Your task to perform on an android device: Open network settings Image 0: 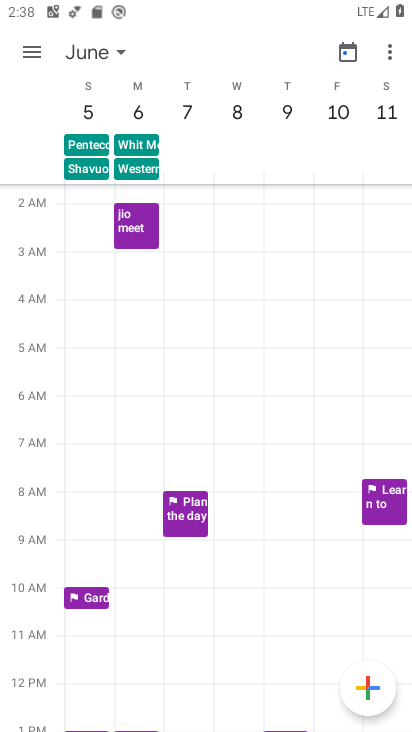
Step 0: press home button
Your task to perform on an android device: Open network settings Image 1: 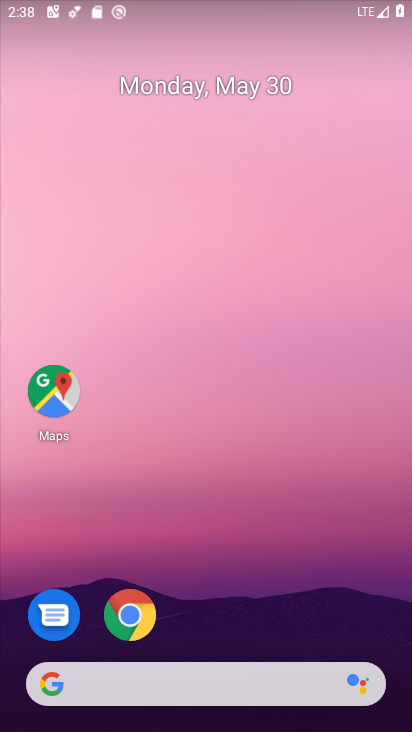
Step 1: drag from (226, 560) to (259, 16)
Your task to perform on an android device: Open network settings Image 2: 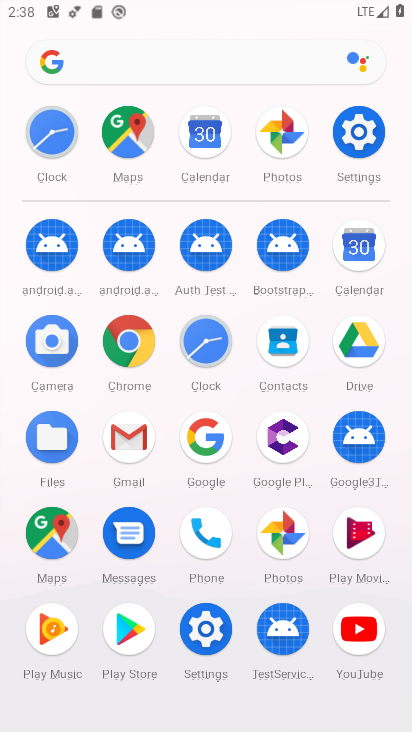
Step 2: click (351, 124)
Your task to perform on an android device: Open network settings Image 3: 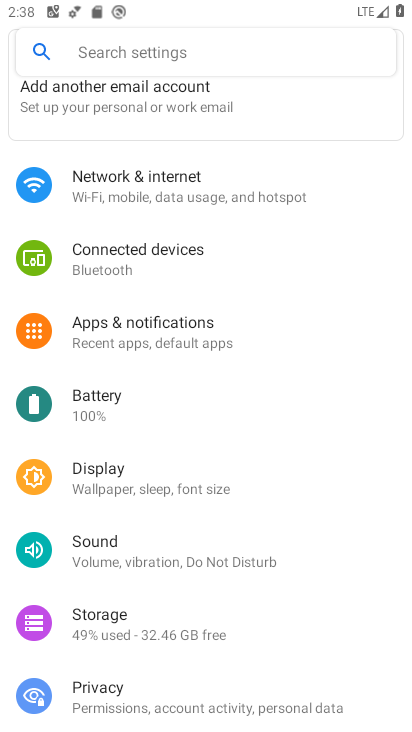
Step 3: click (233, 196)
Your task to perform on an android device: Open network settings Image 4: 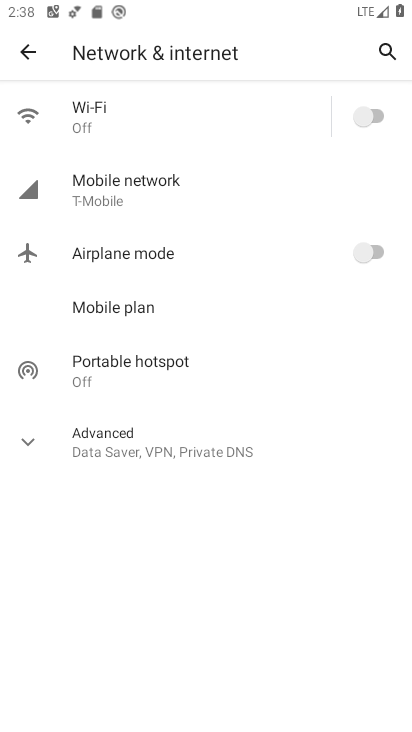
Step 4: task complete